Your task to perform on an android device: set default search engine in the chrome app Image 0: 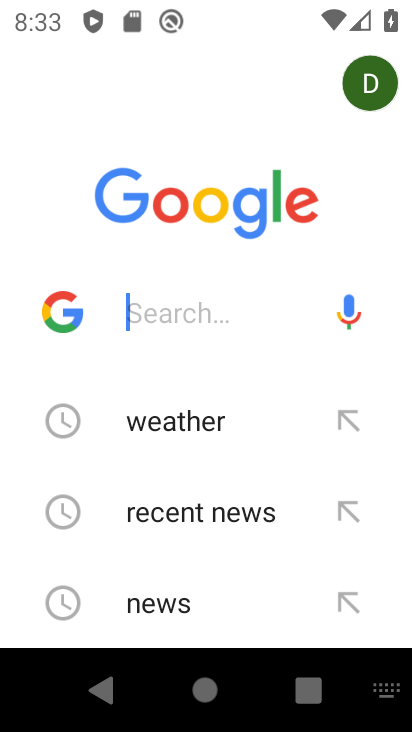
Step 0: press home button
Your task to perform on an android device: set default search engine in the chrome app Image 1: 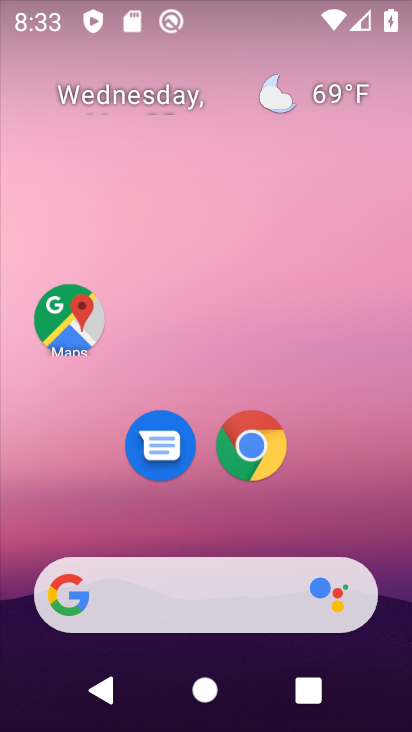
Step 1: drag from (317, 503) to (330, 63)
Your task to perform on an android device: set default search engine in the chrome app Image 2: 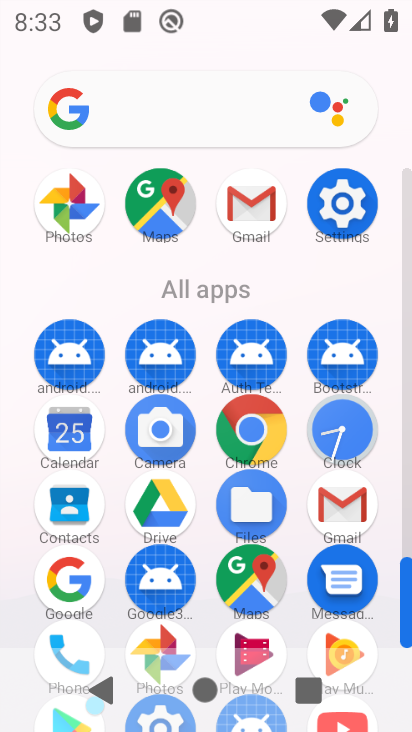
Step 2: click (256, 417)
Your task to perform on an android device: set default search engine in the chrome app Image 3: 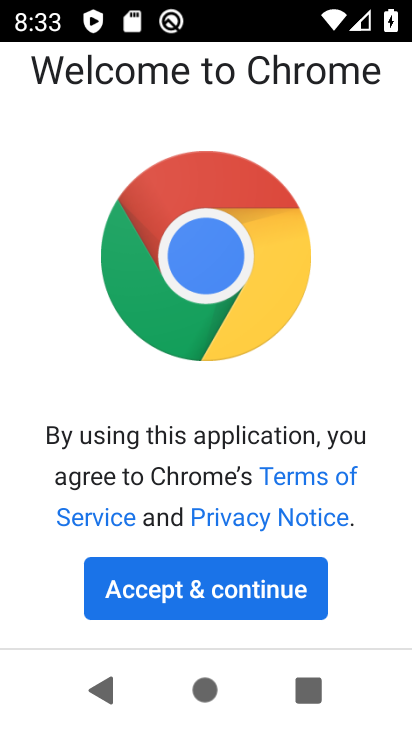
Step 3: click (203, 590)
Your task to perform on an android device: set default search engine in the chrome app Image 4: 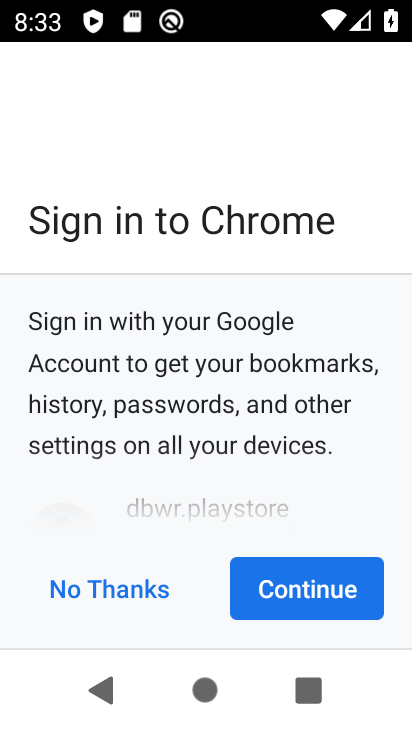
Step 4: click (281, 590)
Your task to perform on an android device: set default search engine in the chrome app Image 5: 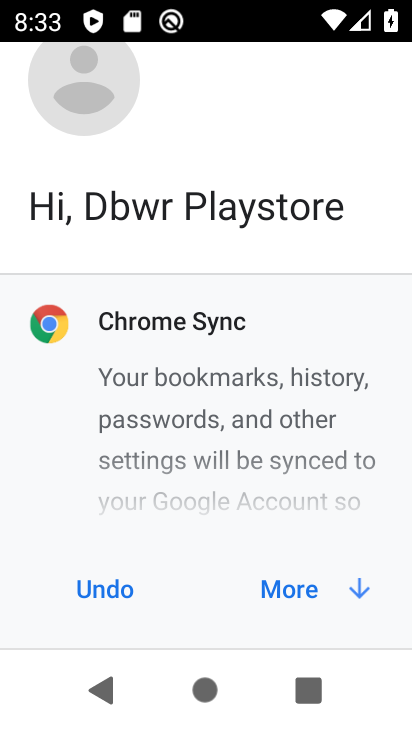
Step 5: click (301, 590)
Your task to perform on an android device: set default search engine in the chrome app Image 6: 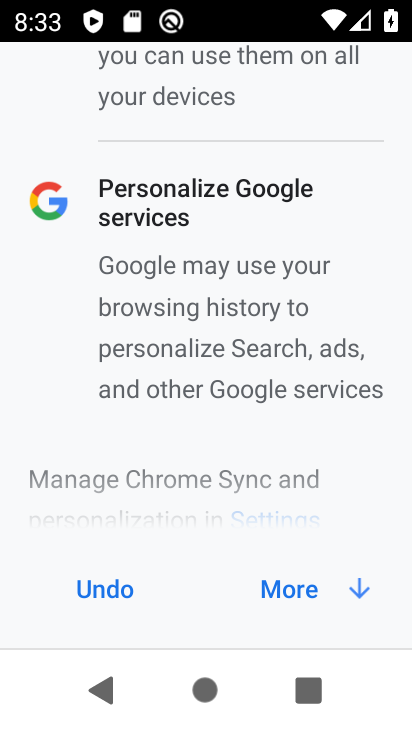
Step 6: click (301, 590)
Your task to perform on an android device: set default search engine in the chrome app Image 7: 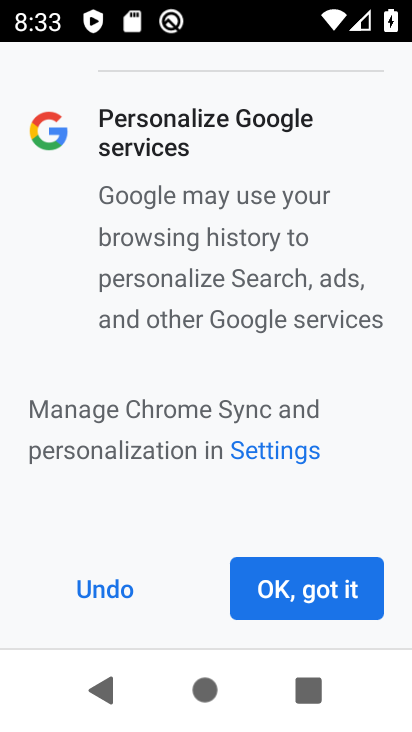
Step 7: click (301, 590)
Your task to perform on an android device: set default search engine in the chrome app Image 8: 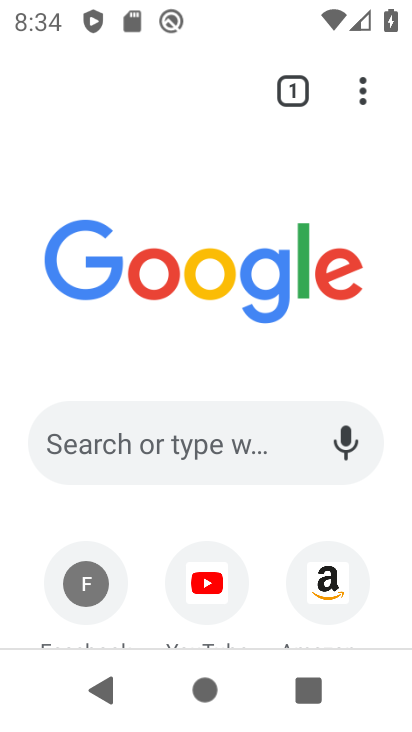
Step 8: drag from (355, 105) to (104, 472)
Your task to perform on an android device: set default search engine in the chrome app Image 9: 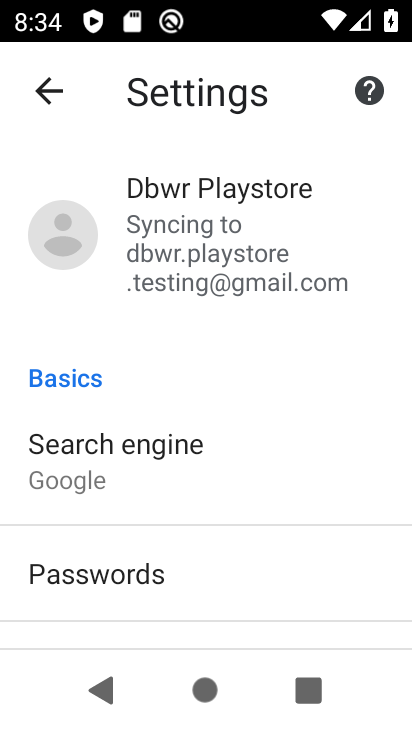
Step 9: click (82, 463)
Your task to perform on an android device: set default search engine in the chrome app Image 10: 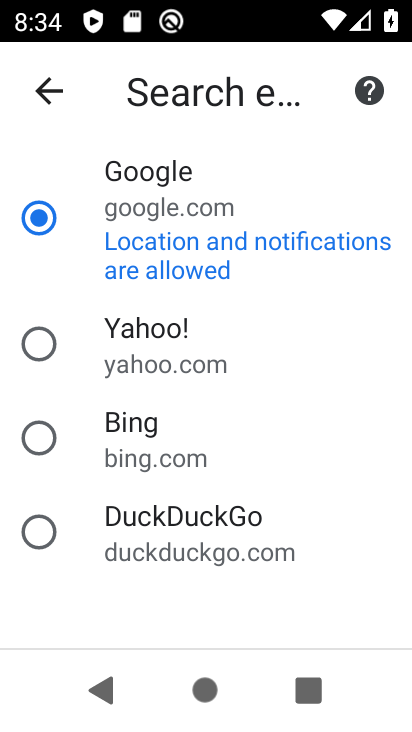
Step 10: task complete